Your task to perform on an android device: delete location history Image 0: 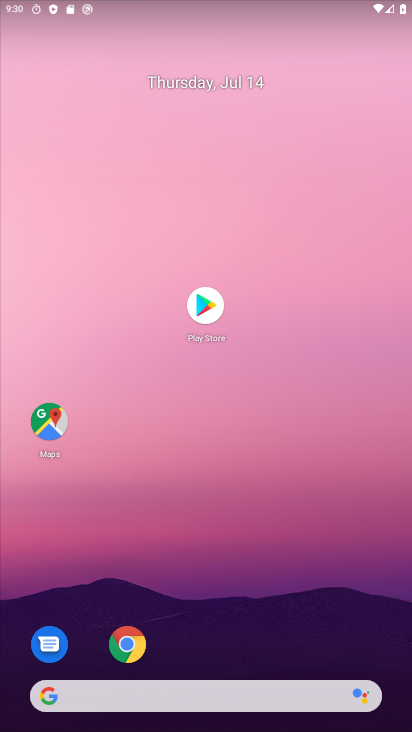
Step 0: drag from (214, 628) to (262, 99)
Your task to perform on an android device: delete location history Image 1: 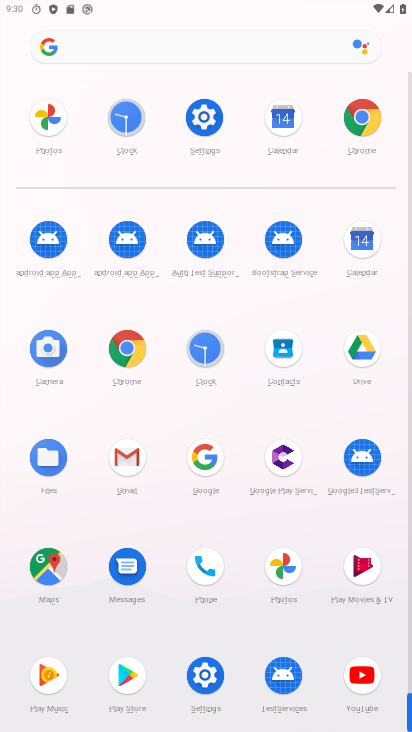
Step 1: click (196, 668)
Your task to perform on an android device: delete location history Image 2: 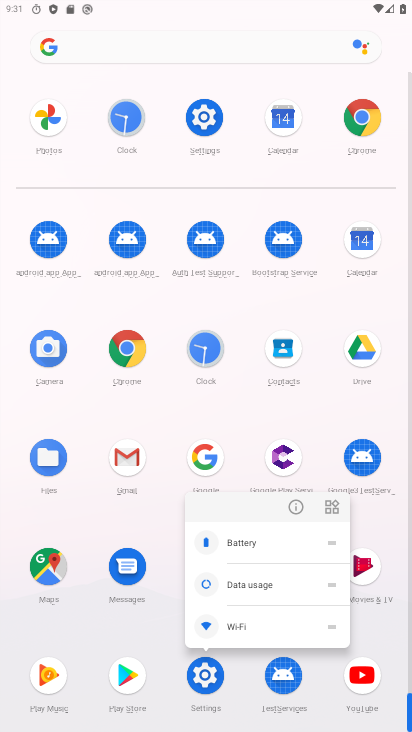
Step 2: click (296, 507)
Your task to perform on an android device: delete location history Image 3: 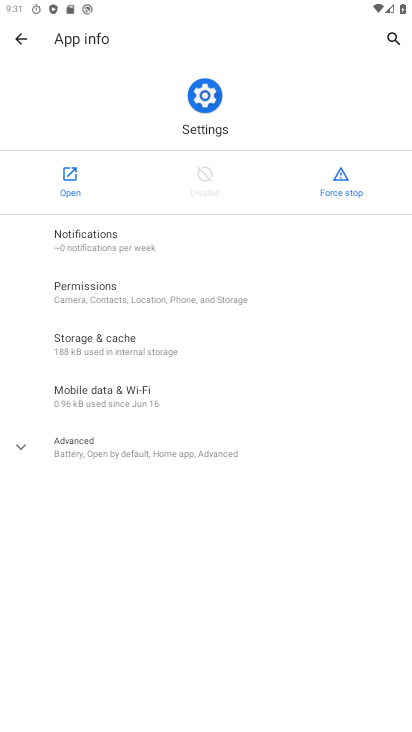
Step 3: click (56, 186)
Your task to perform on an android device: delete location history Image 4: 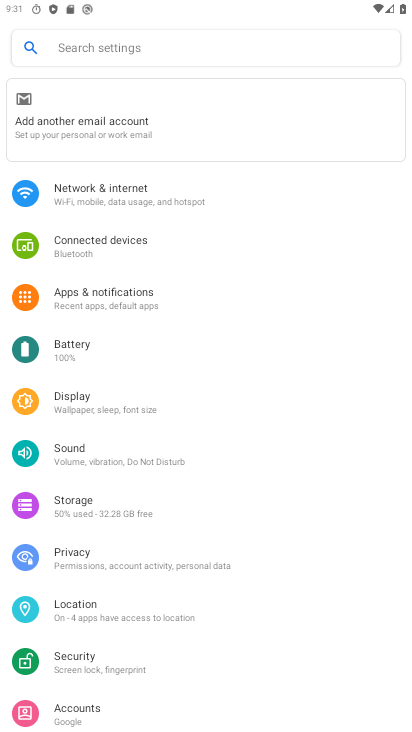
Step 4: click (85, 609)
Your task to perform on an android device: delete location history Image 5: 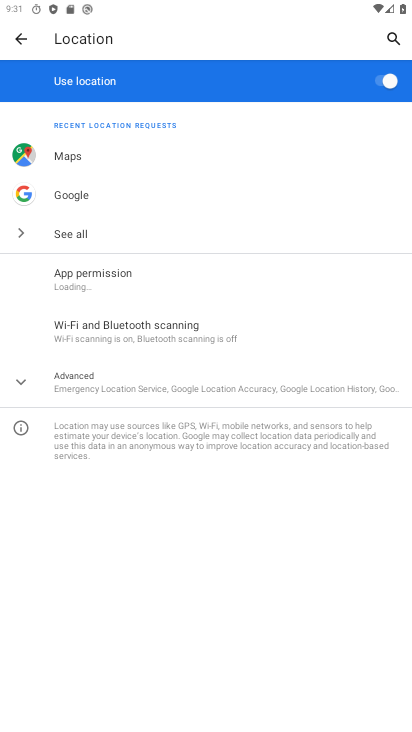
Step 5: click (102, 388)
Your task to perform on an android device: delete location history Image 6: 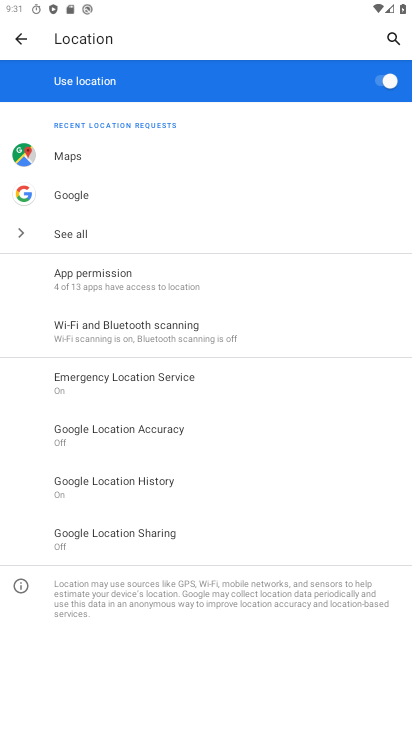
Step 6: click (169, 481)
Your task to perform on an android device: delete location history Image 7: 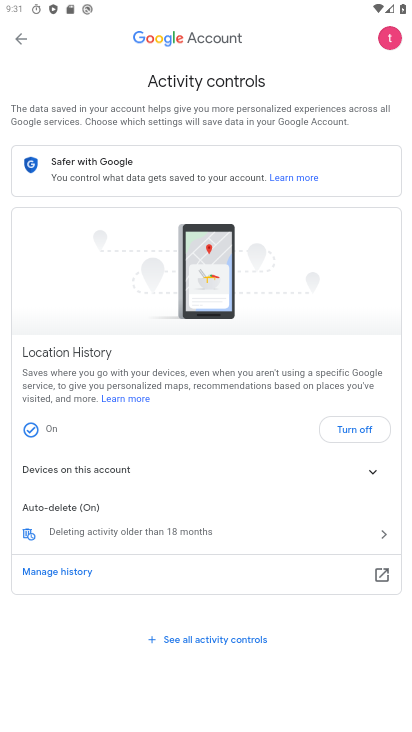
Step 7: click (347, 427)
Your task to perform on an android device: delete location history Image 8: 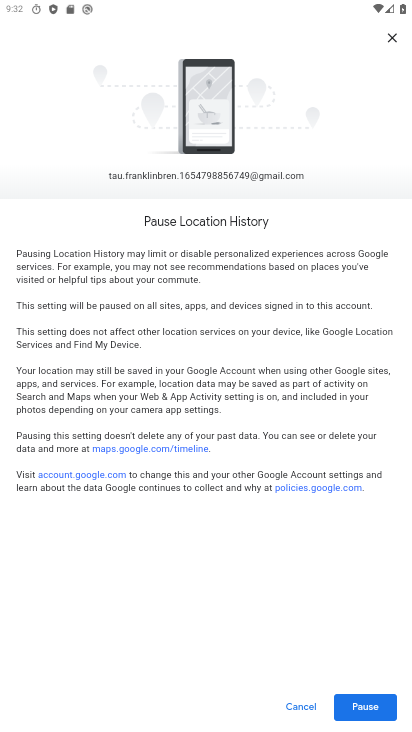
Step 8: click (295, 707)
Your task to perform on an android device: delete location history Image 9: 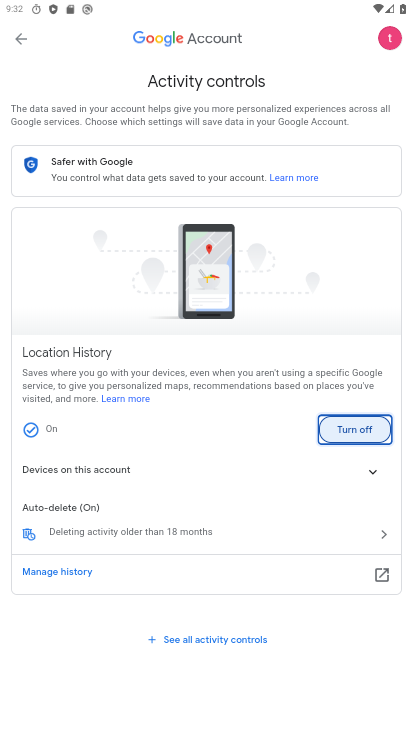
Step 9: click (42, 530)
Your task to perform on an android device: delete location history Image 10: 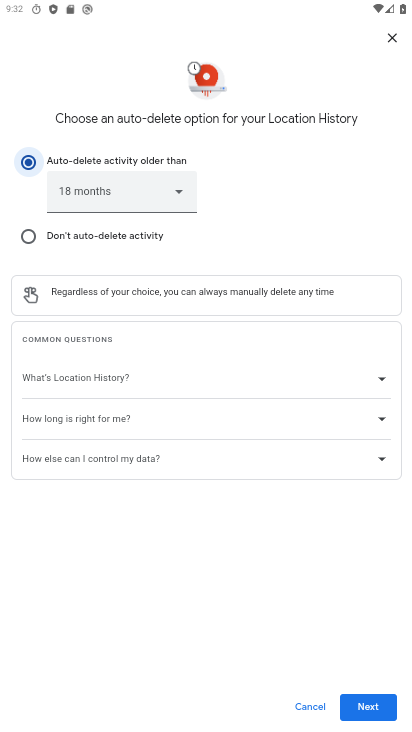
Step 10: click (378, 716)
Your task to perform on an android device: delete location history Image 11: 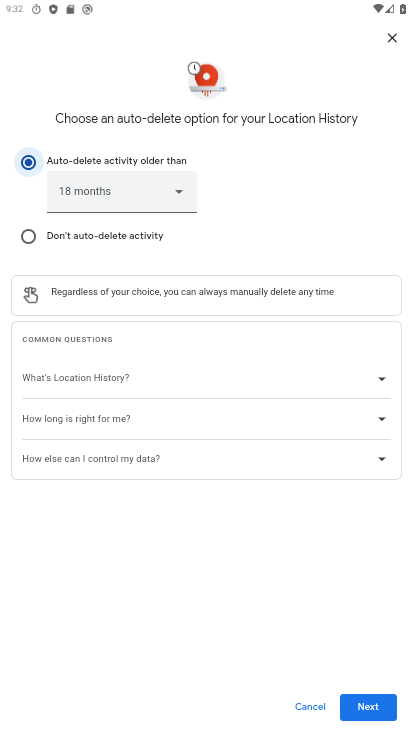
Step 11: click (377, 715)
Your task to perform on an android device: delete location history Image 12: 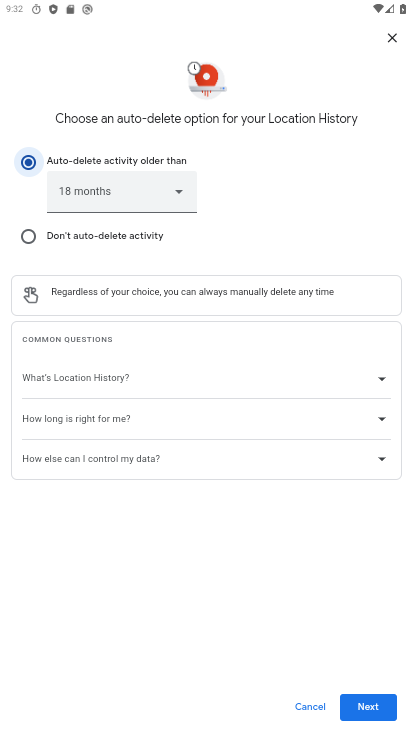
Step 12: click (377, 715)
Your task to perform on an android device: delete location history Image 13: 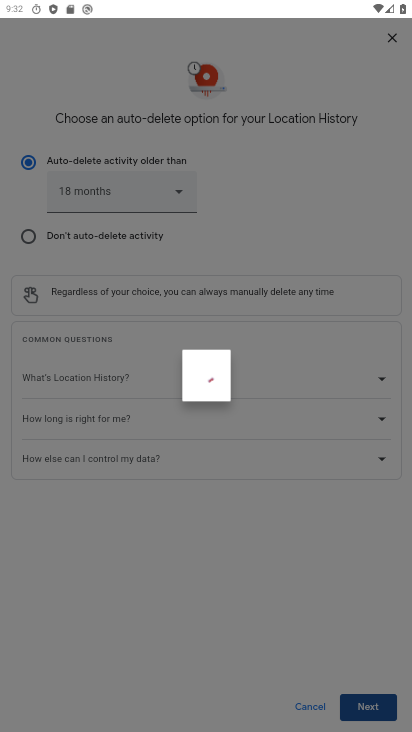
Step 13: click (367, 707)
Your task to perform on an android device: delete location history Image 14: 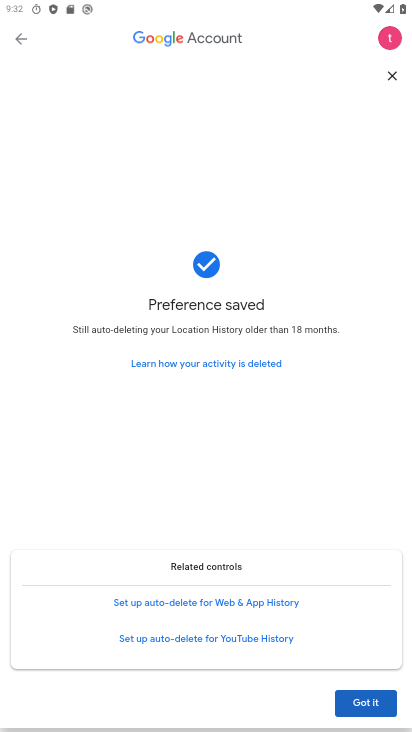
Step 14: task complete